Your task to perform on an android device: empty trash in the gmail app Image 0: 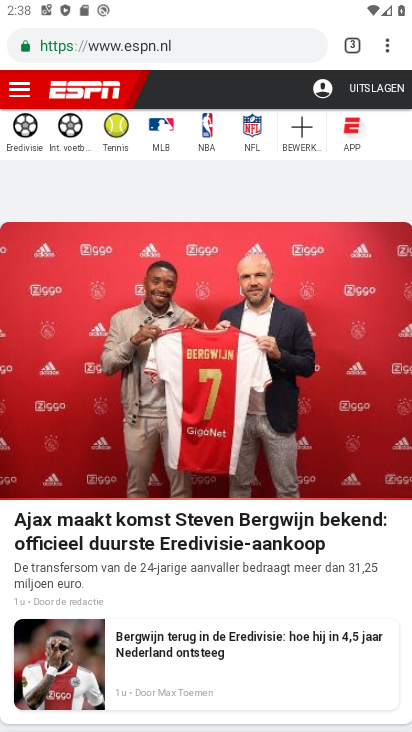
Step 0: press home button
Your task to perform on an android device: empty trash in the gmail app Image 1: 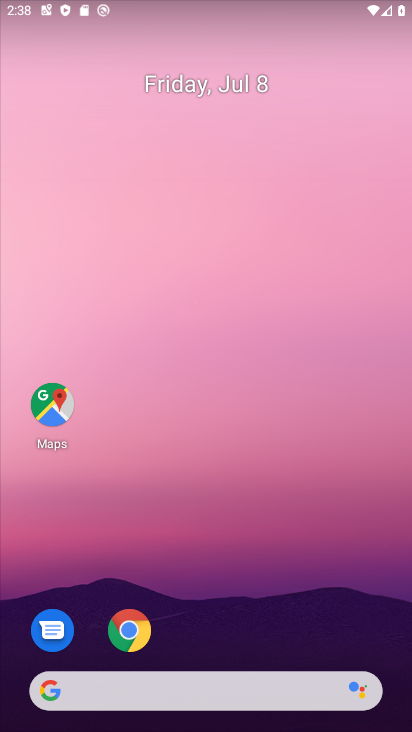
Step 1: drag from (294, 599) to (279, 254)
Your task to perform on an android device: empty trash in the gmail app Image 2: 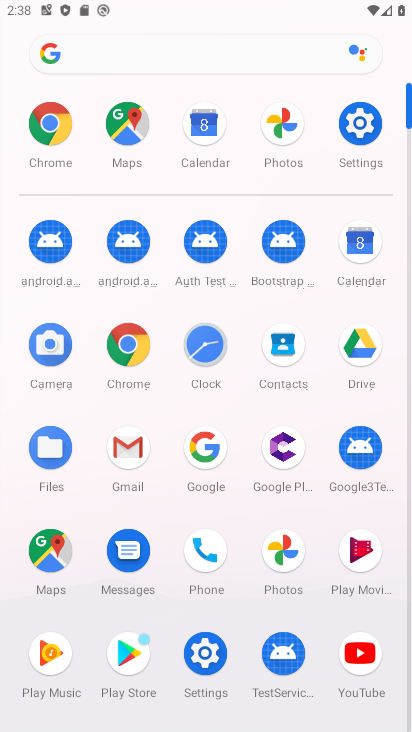
Step 2: click (131, 456)
Your task to perform on an android device: empty trash in the gmail app Image 3: 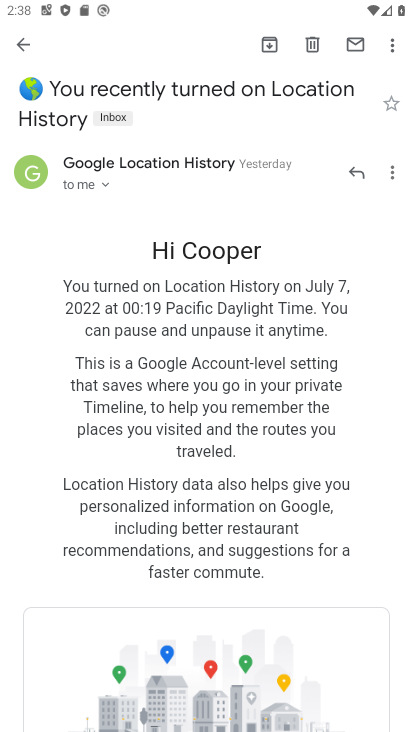
Step 3: click (397, 39)
Your task to perform on an android device: empty trash in the gmail app Image 4: 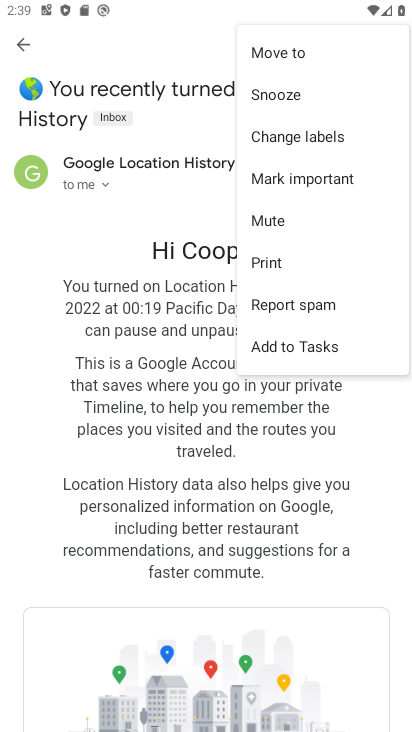
Step 4: click (17, 30)
Your task to perform on an android device: empty trash in the gmail app Image 5: 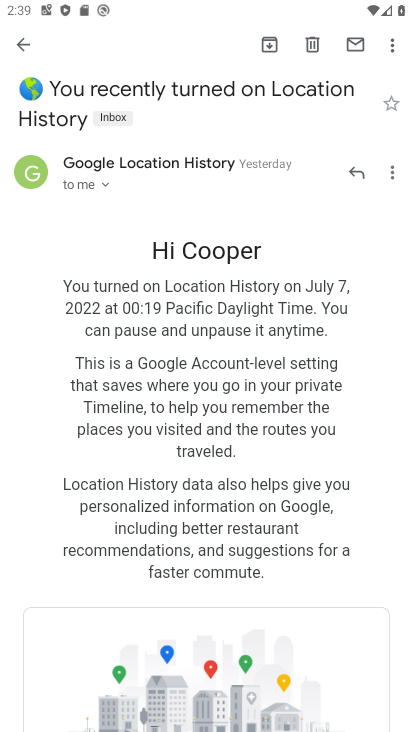
Step 5: click (17, 30)
Your task to perform on an android device: empty trash in the gmail app Image 6: 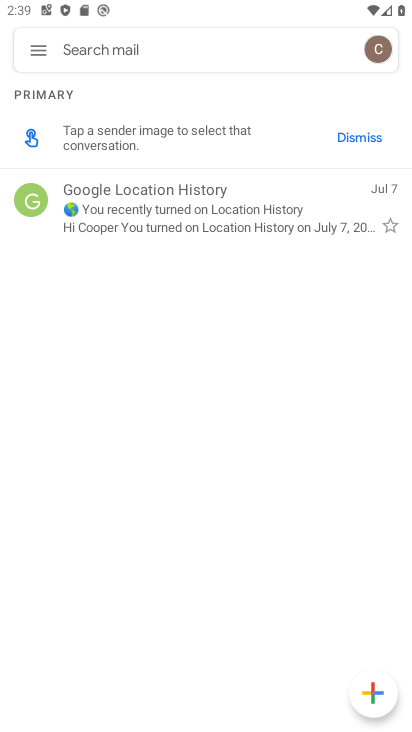
Step 6: click (26, 55)
Your task to perform on an android device: empty trash in the gmail app Image 7: 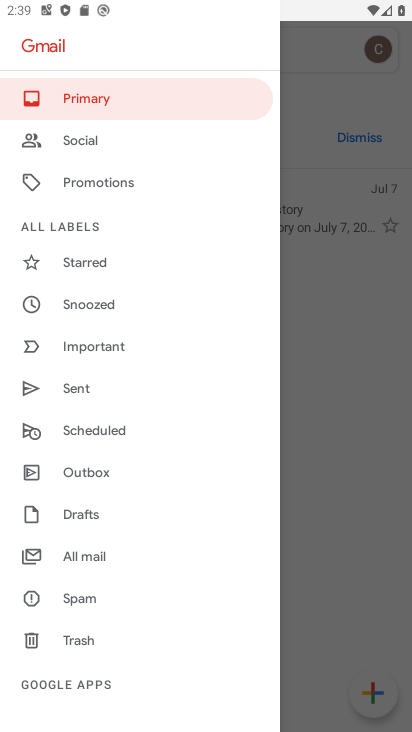
Step 7: click (89, 634)
Your task to perform on an android device: empty trash in the gmail app Image 8: 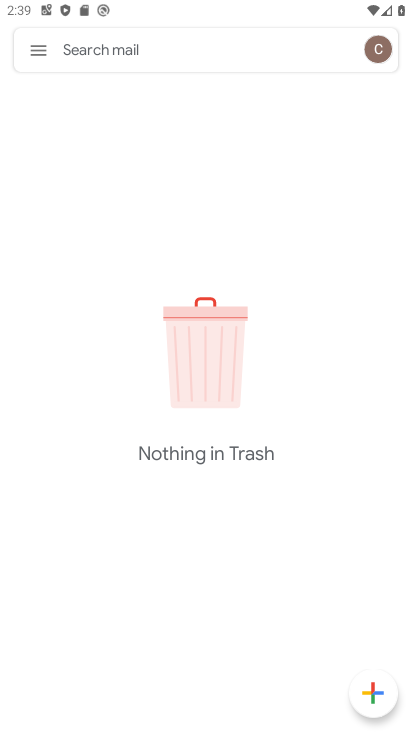
Step 8: task complete